Your task to perform on an android device: Open calendar and show me the third week of next month Image 0: 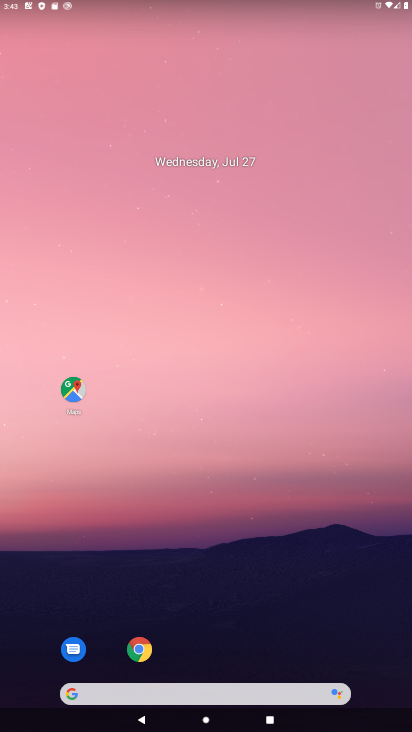
Step 0: drag from (386, 675) to (286, 132)
Your task to perform on an android device: Open calendar and show me the third week of next month Image 1: 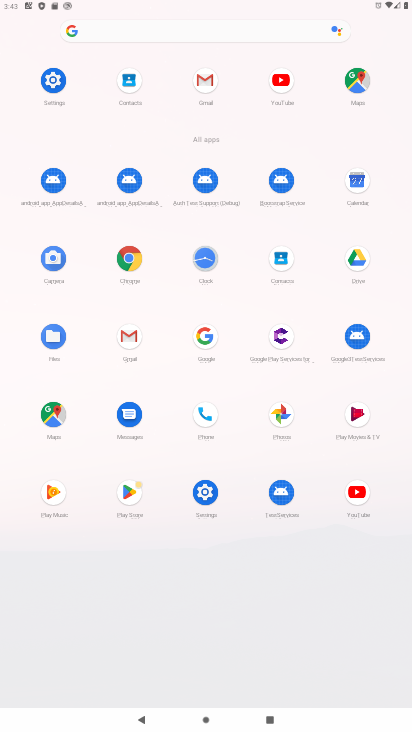
Step 1: click (357, 182)
Your task to perform on an android device: Open calendar and show me the third week of next month Image 2: 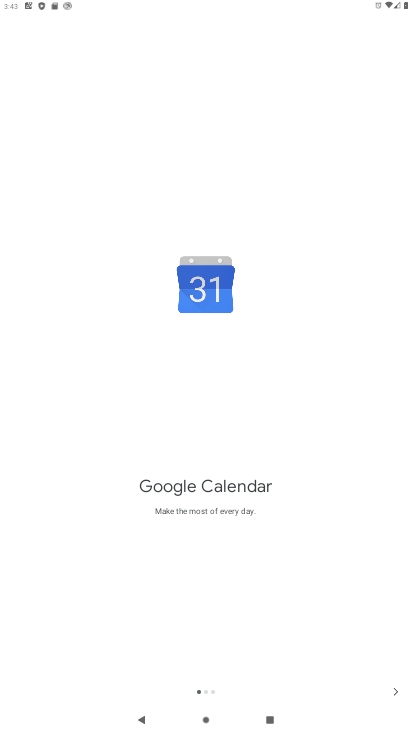
Step 2: click (394, 691)
Your task to perform on an android device: Open calendar and show me the third week of next month Image 3: 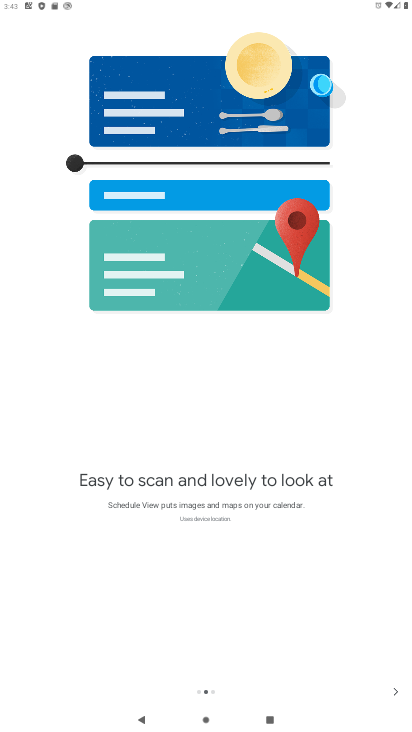
Step 3: click (394, 691)
Your task to perform on an android device: Open calendar and show me the third week of next month Image 4: 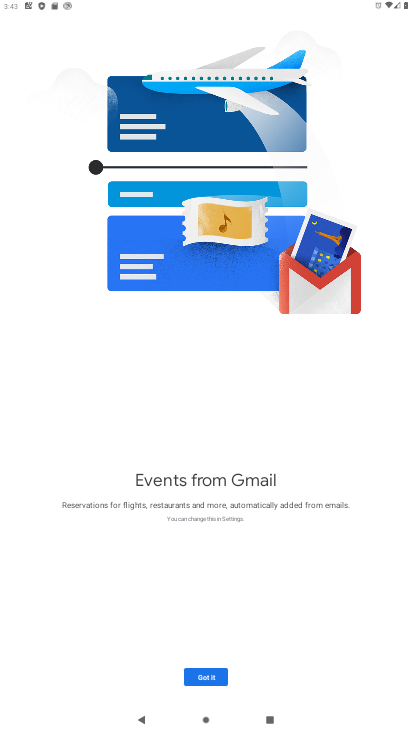
Step 4: click (206, 677)
Your task to perform on an android device: Open calendar and show me the third week of next month Image 5: 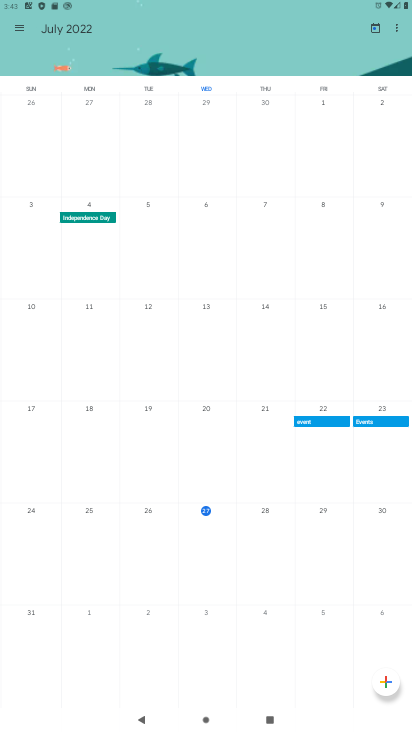
Step 5: click (18, 28)
Your task to perform on an android device: Open calendar and show me the third week of next month Image 6: 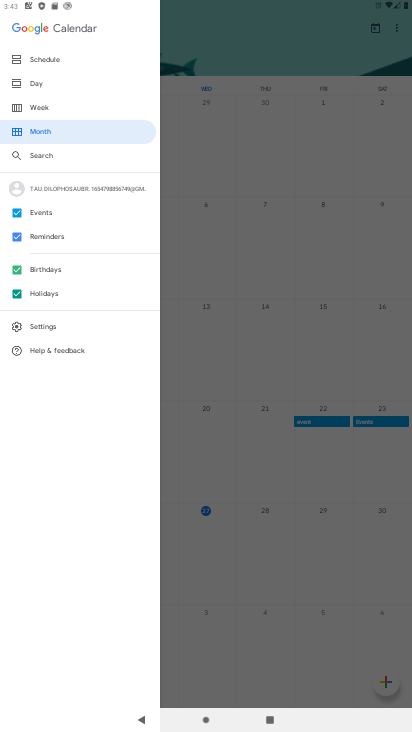
Step 6: click (41, 105)
Your task to perform on an android device: Open calendar and show me the third week of next month Image 7: 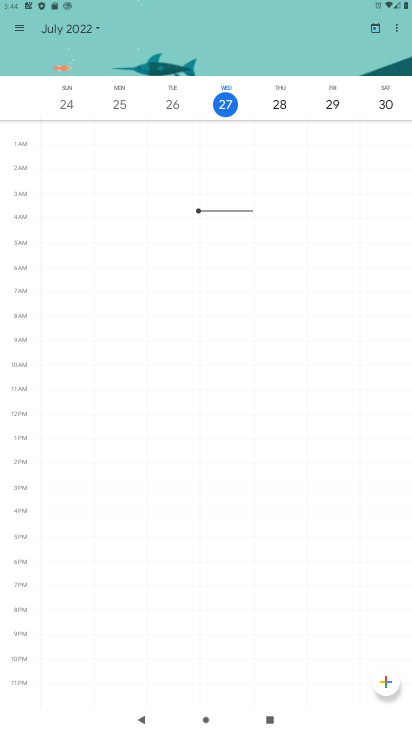
Step 7: click (98, 30)
Your task to perform on an android device: Open calendar and show me the third week of next month Image 8: 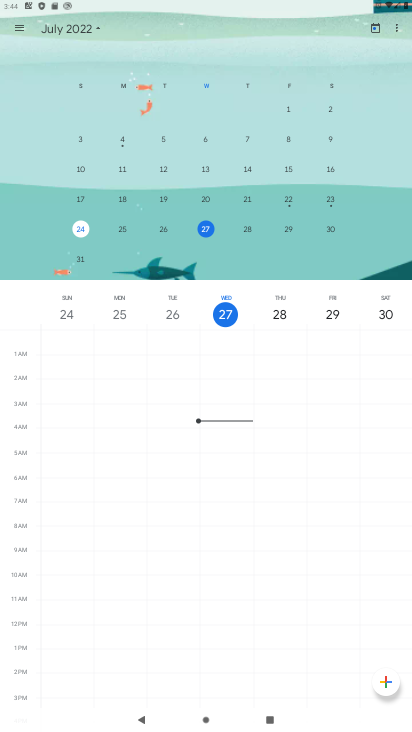
Step 8: drag from (331, 189) to (7, 154)
Your task to perform on an android device: Open calendar and show me the third week of next month Image 9: 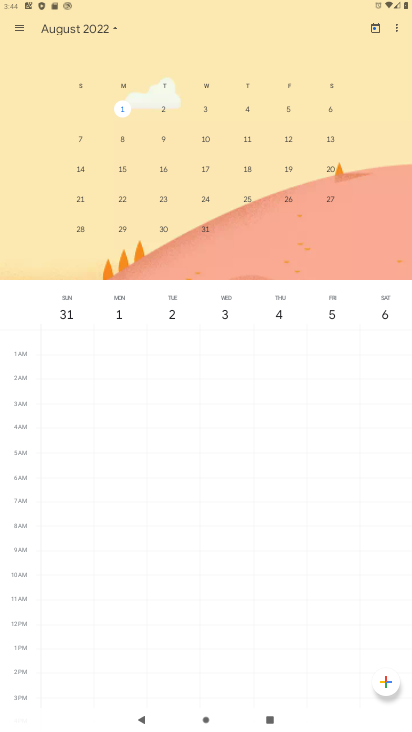
Step 9: click (79, 198)
Your task to perform on an android device: Open calendar and show me the third week of next month Image 10: 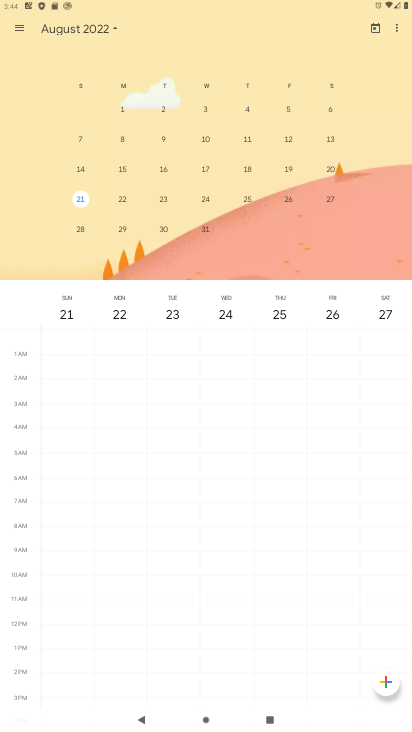
Step 10: task complete